Your task to perform on an android device: open sync settings in chrome Image 0: 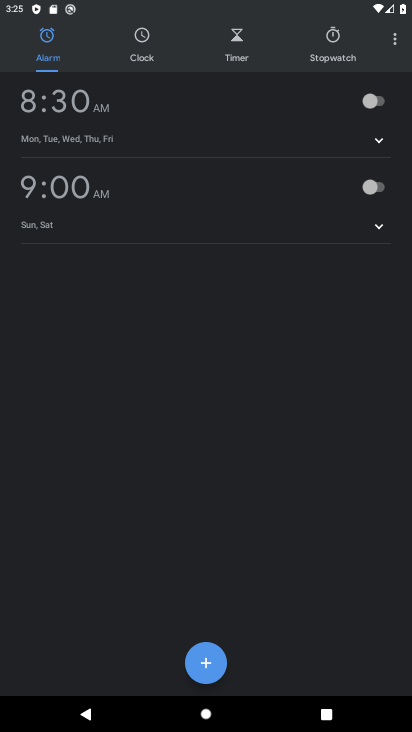
Step 0: press home button
Your task to perform on an android device: open sync settings in chrome Image 1: 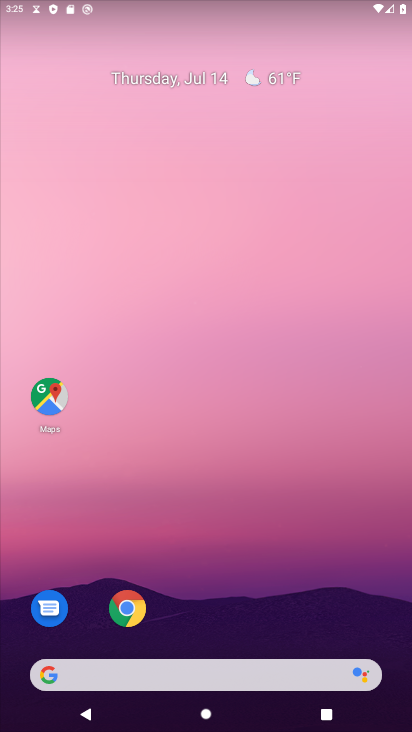
Step 1: click (134, 619)
Your task to perform on an android device: open sync settings in chrome Image 2: 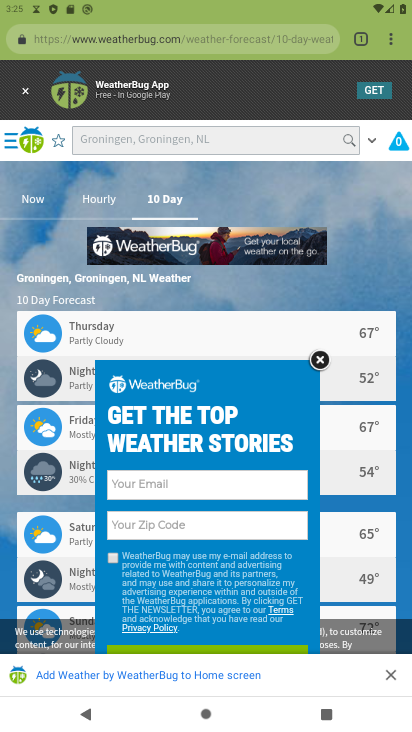
Step 2: drag from (400, 46) to (269, 469)
Your task to perform on an android device: open sync settings in chrome Image 3: 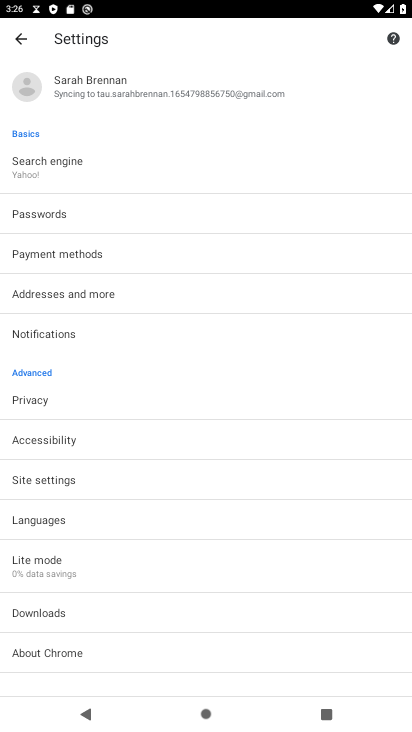
Step 3: click (92, 104)
Your task to perform on an android device: open sync settings in chrome Image 4: 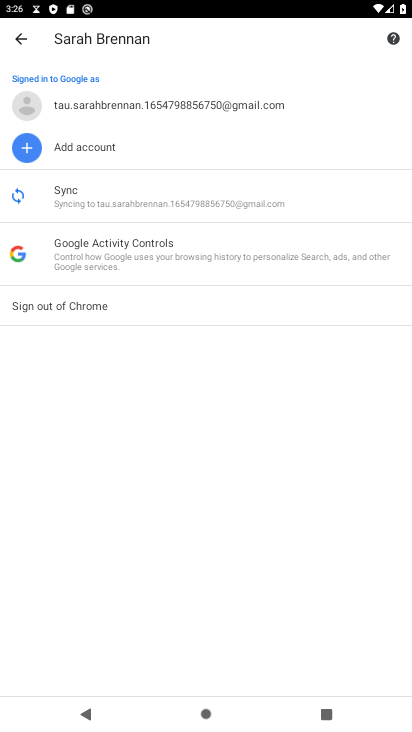
Step 4: click (111, 187)
Your task to perform on an android device: open sync settings in chrome Image 5: 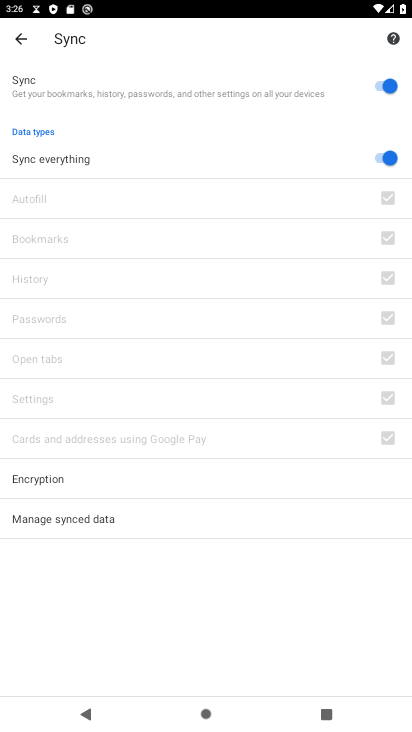
Step 5: task complete